Your task to perform on an android device: Is it going to rain tomorrow? Image 0: 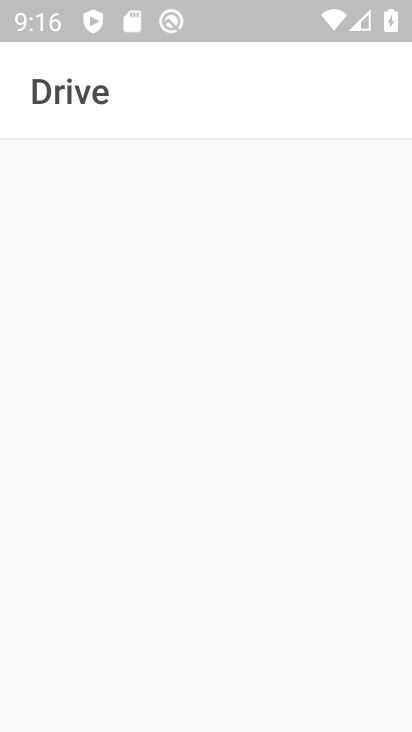
Step 0: press home button
Your task to perform on an android device: Is it going to rain tomorrow? Image 1: 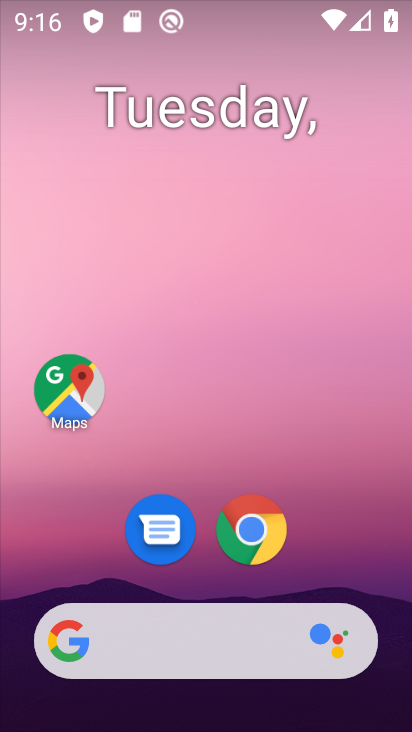
Step 1: click (260, 542)
Your task to perform on an android device: Is it going to rain tomorrow? Image 2: 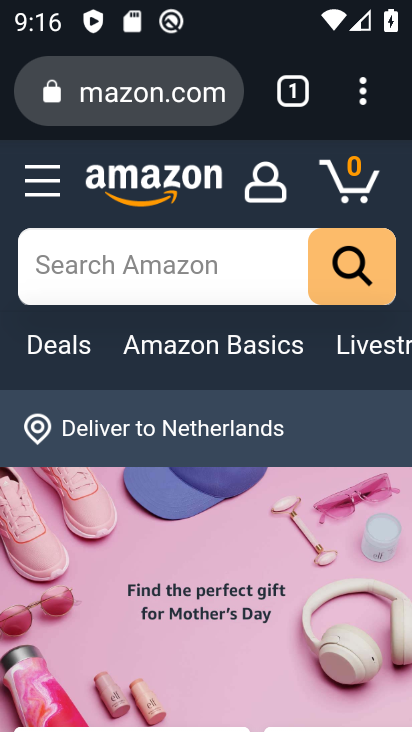
Step 2: click (163, 90)
Your task to perform on an android device: Is it going to rain tomorrow? Image 3: 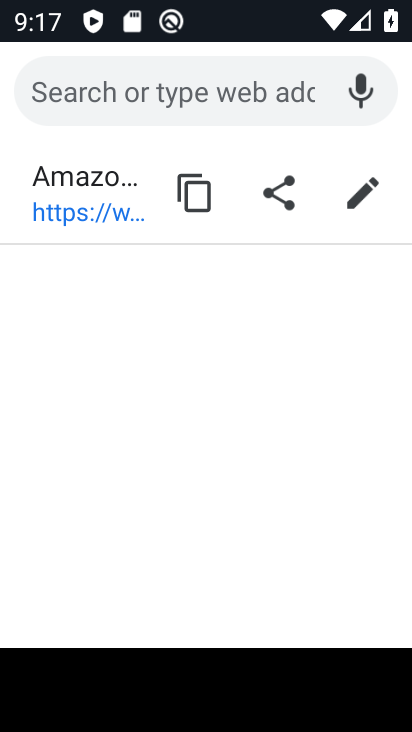
Step 3: type "Is it going to rain tomorrow"
Your task to perform on an android device: Is it going to rain tomorrow? Image 4: 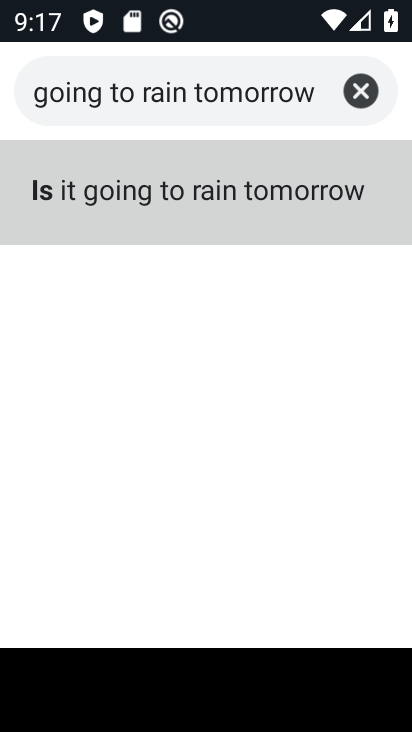
Step 4: click (254, 203)
Your task to perform on an android device: Is it going to rain tomorrow? Image 5: 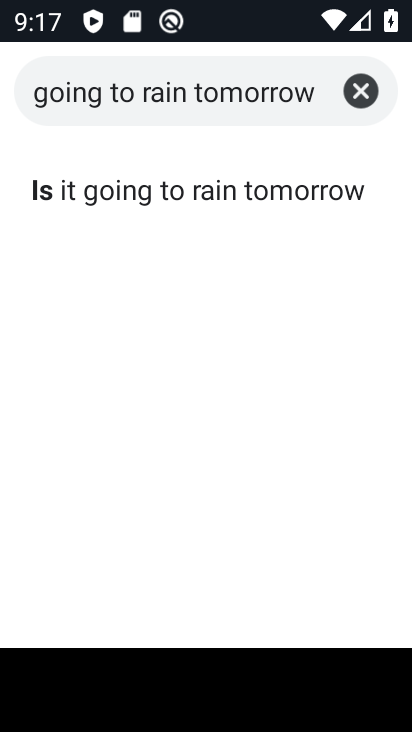
Step 5: click (320, 192)
Your task to perform on an android device: Is it going to rain tomorrow? Image 6: 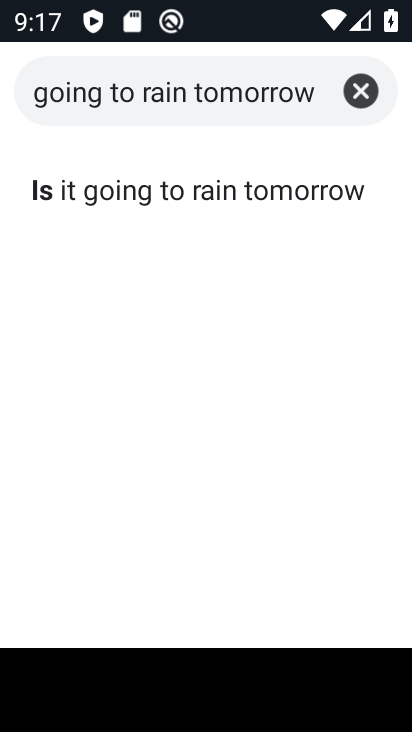
Step 6: click (208, 198)
Your task to perform on an android device: Is it going to rain tomorrow? Image 7: 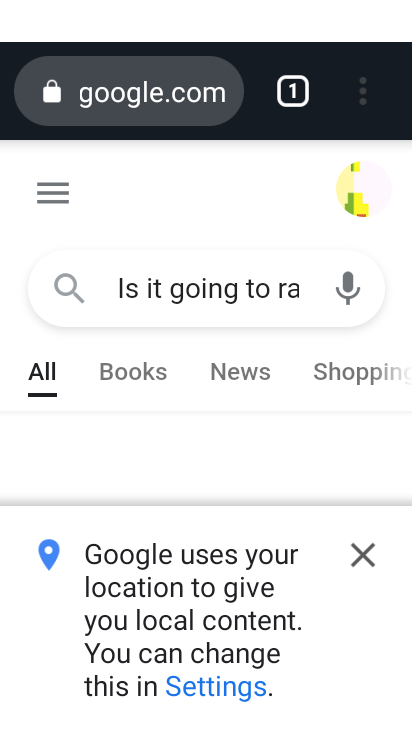
Step 7: click (364, 563)
Your task to perform on an android device: Is it going to rain tomorrow? Image 8: 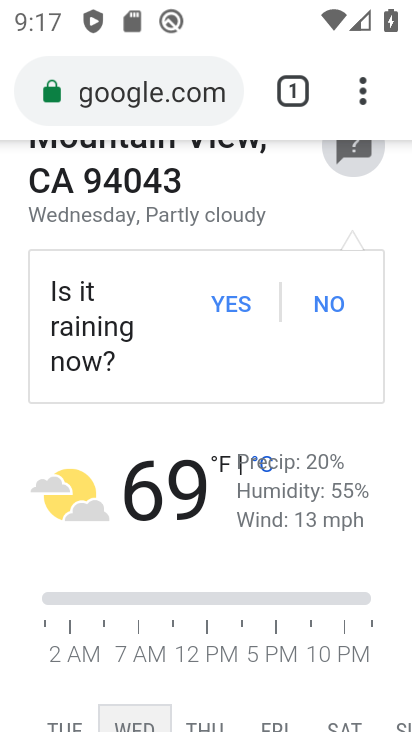
Step 8: task complete